Your task to perform on an android device: change text size in settings app Image 0: 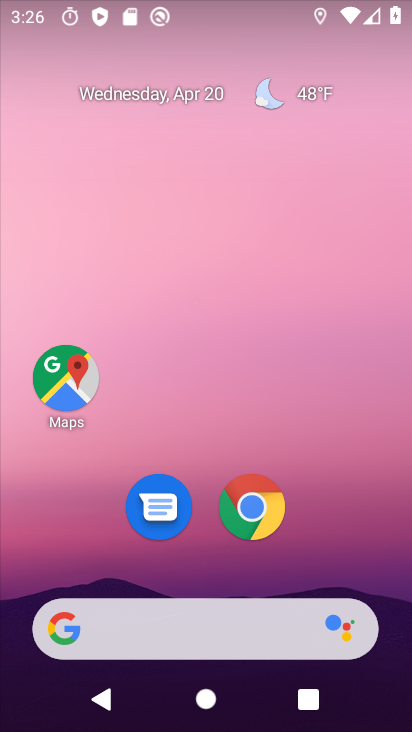
Step 0: drag from (173, 635) to (224, 269)
Your task to perform on an android device: change text size in settings app Image 1: 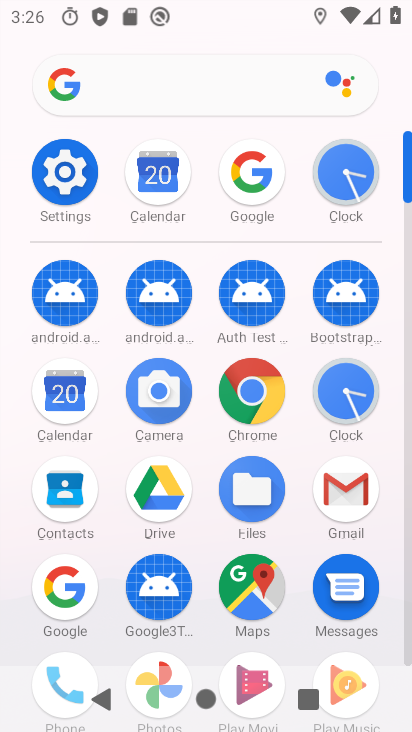
Step 1: click (62, 169)
Your task to perform on an android device: change text size in settings app Image 2: 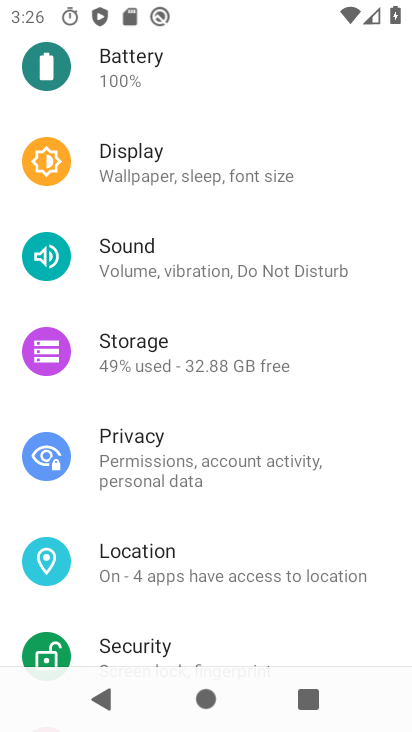
Step 2: click (131, 181)
Your task to perform on an android device: change text size in settings app Image 3: 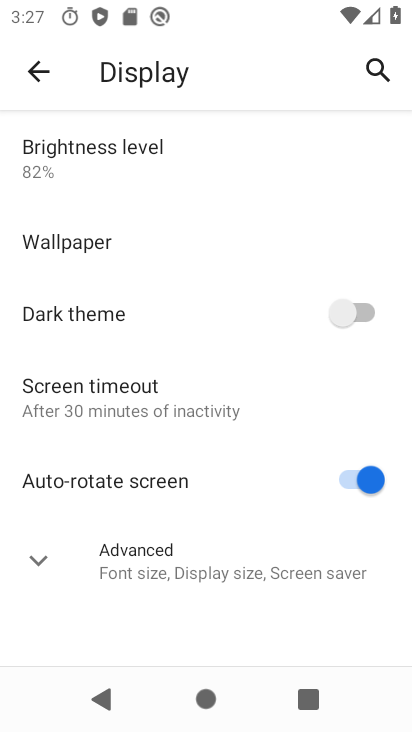
Step 3: click (87, 576)
Your task to perform on an android device: change text size in settings app Image 4: 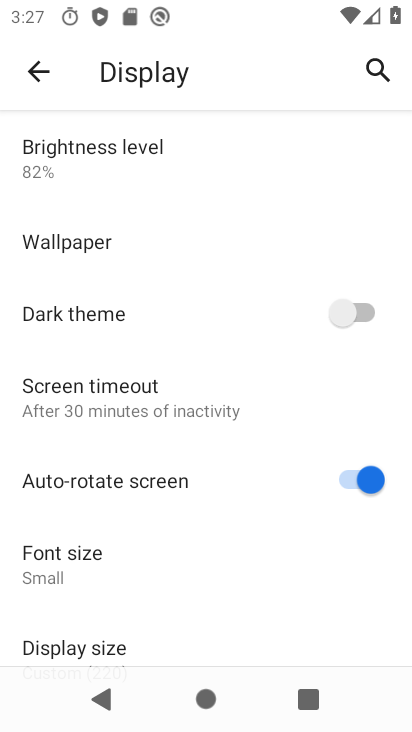
Step 4: drag from (127, 583) to (168, 307)
Your task to perform on an android device: change text size in settings app Image 5: 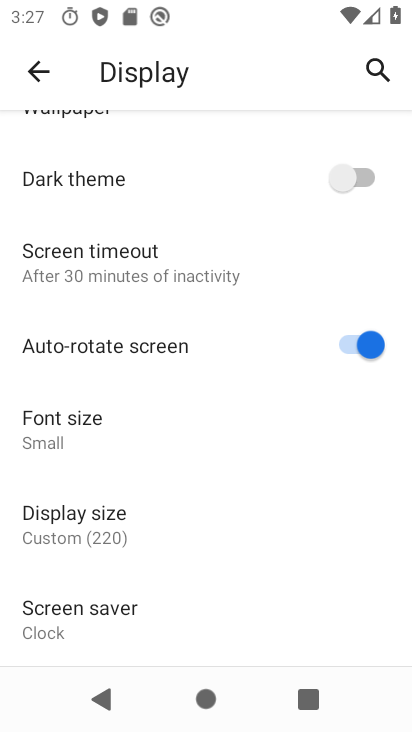
Step 5: click (148, 430)
Your task to perform on an android device: change text size in settings app Image 6: 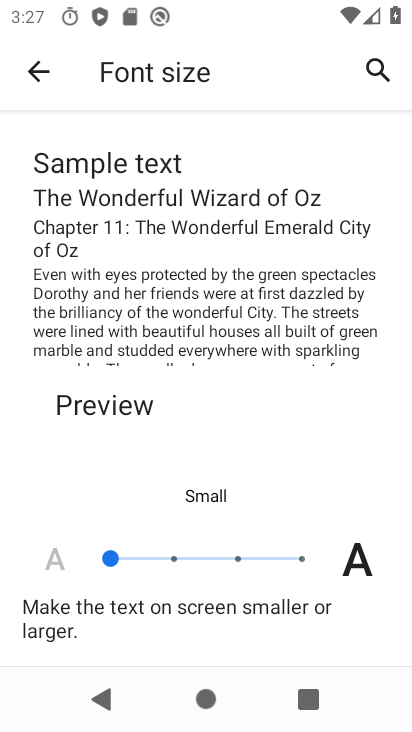
Step 6: click (173, 558)
Your task to perform on an android device: change text size in settings app Image 7: 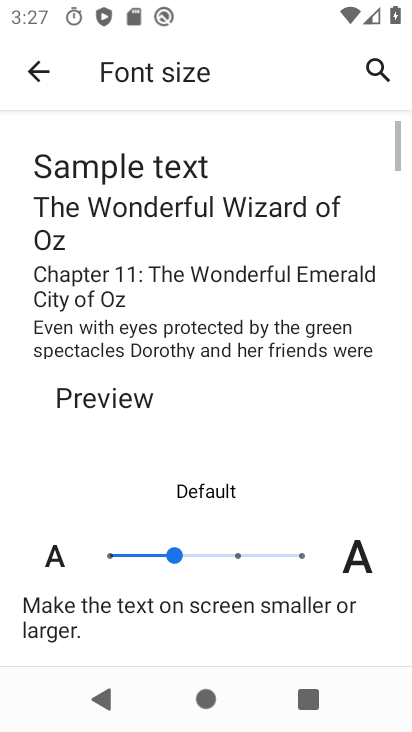
Step 7: task complete